Your task to perform on an android device: What's the weather going to be tomorrow? Image 0: 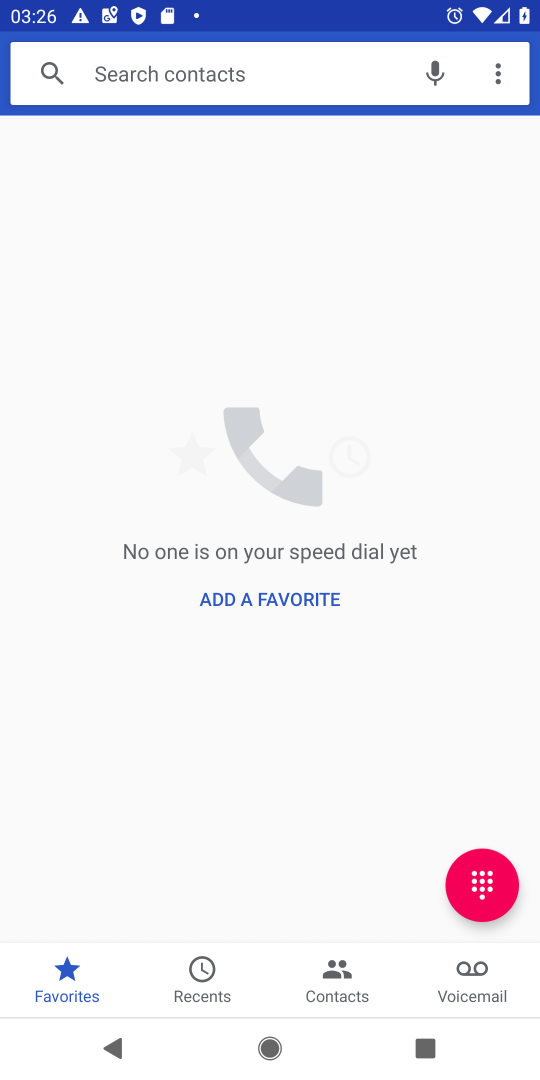
Step 0: press home button
Your task to perform on an android device: What's the weather going to be tomorrow? Image 1: 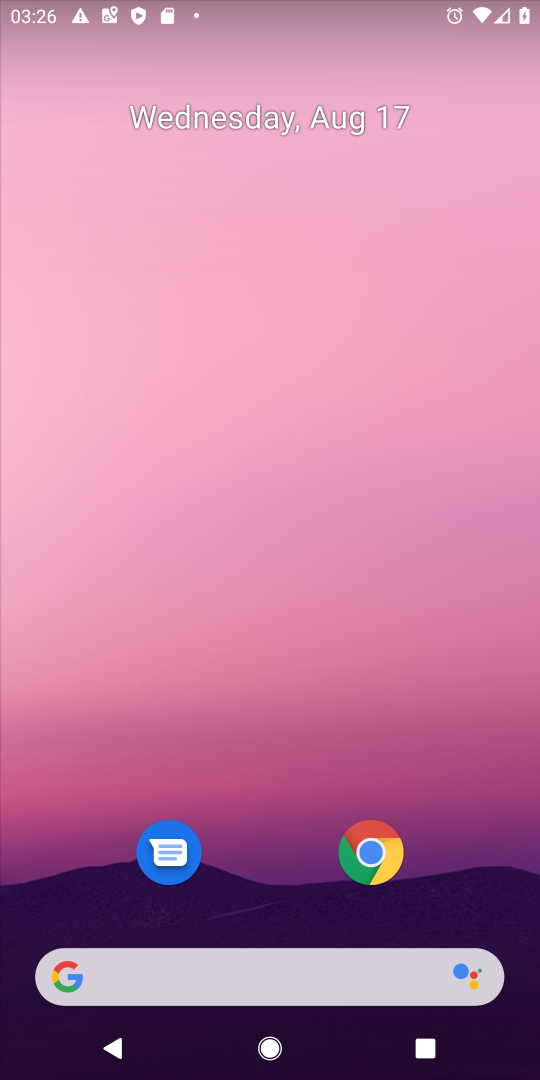
Step 1: click (371, 854)
Your task to perform on an android device: What's the weather going to be tomorrow? Image 2: 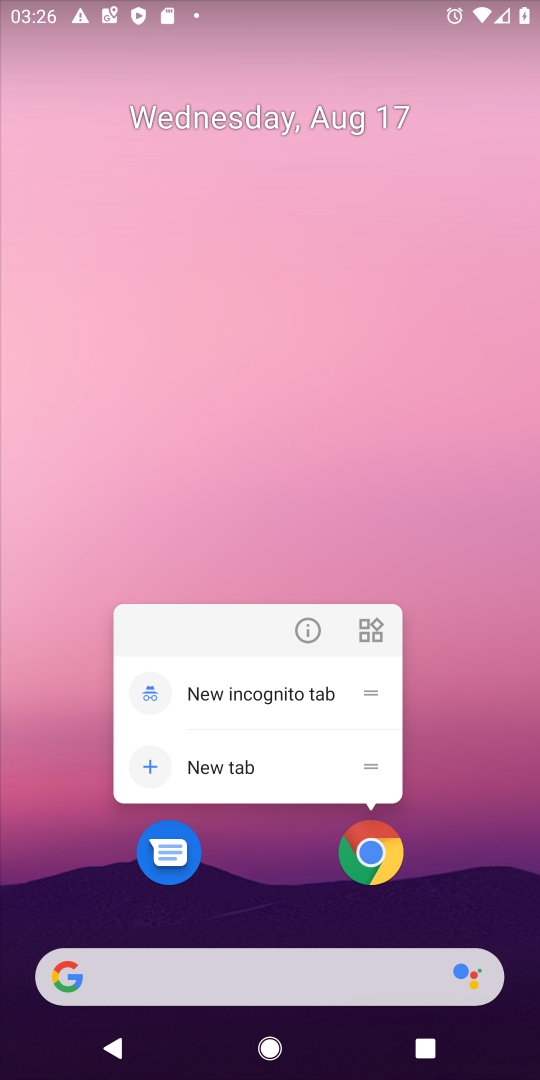
Step 2: click (371, 854)
Your task to perform on an android device: What's the weather going to be tomorrow? Image 3: 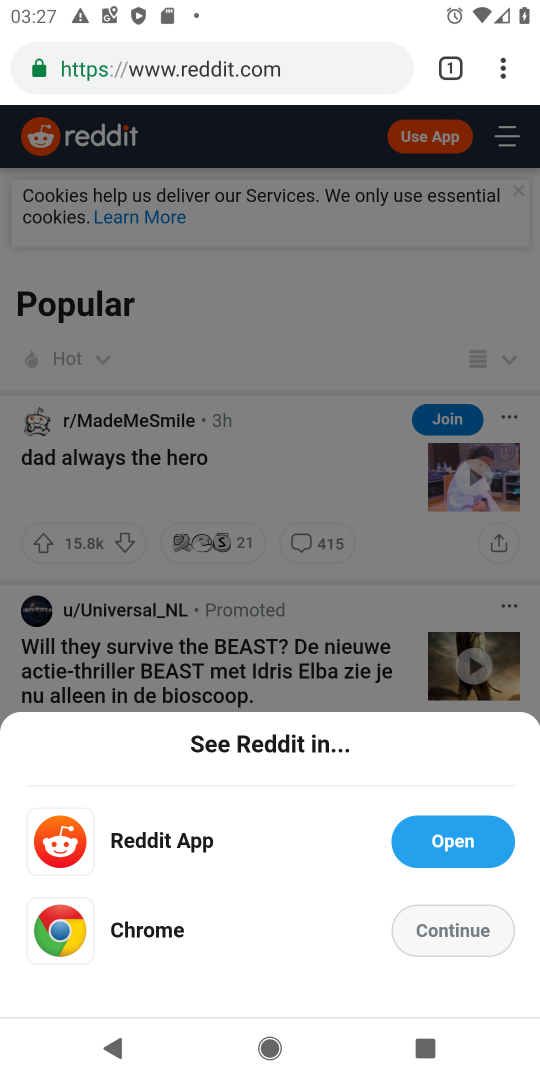
Step 3: click (230, 54)
Your task to perform on an android device: What's the weather going to be tomorrow? Image 4: 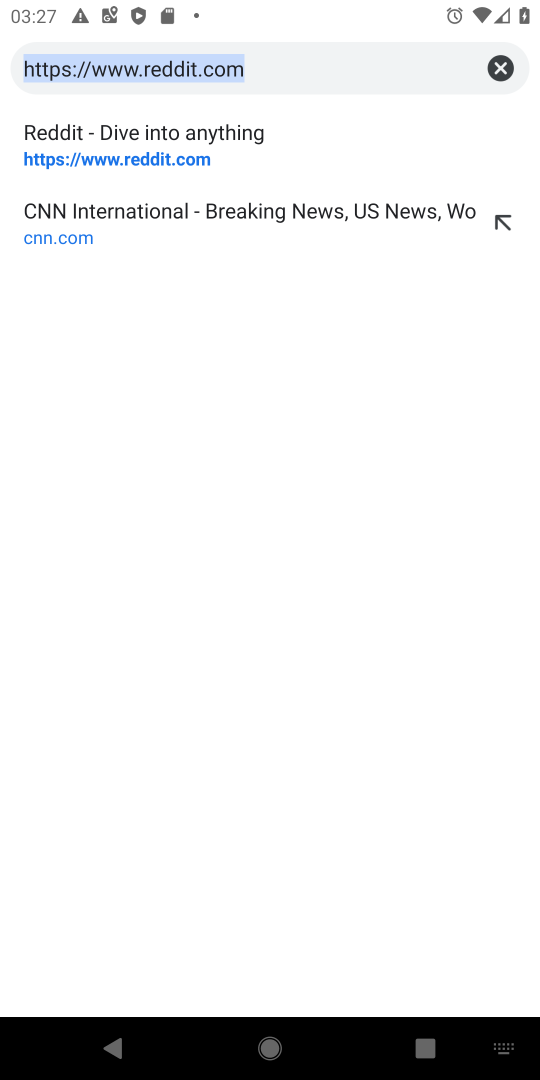
Step 4: type "weather"
Your task to perform on an android device: What's the weather going to be tomorrow? Image 5: 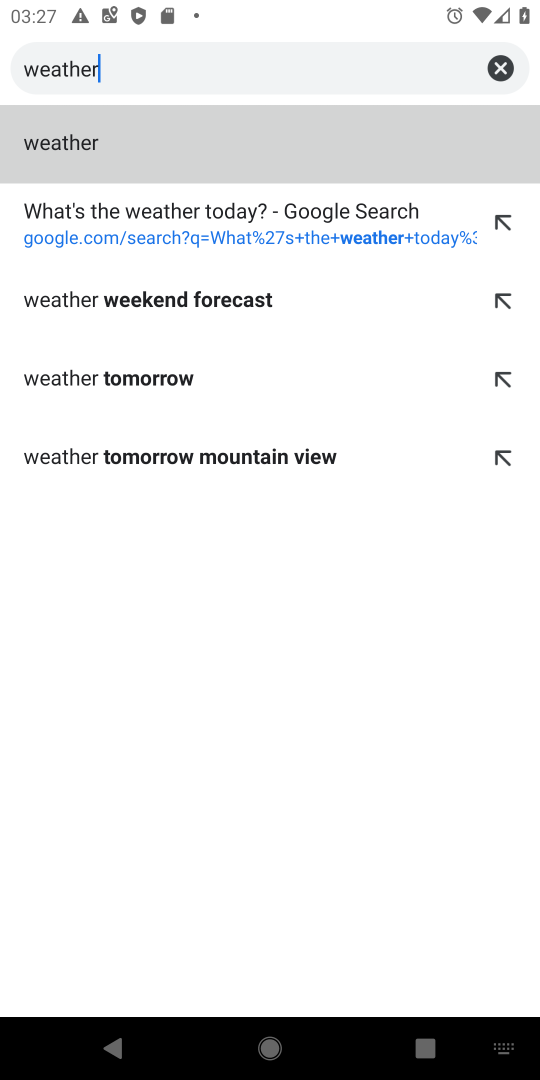
Step 5: click (150, 149)
Your task to perform on an android device: What's the weather going to be tomorrow? Image 6: 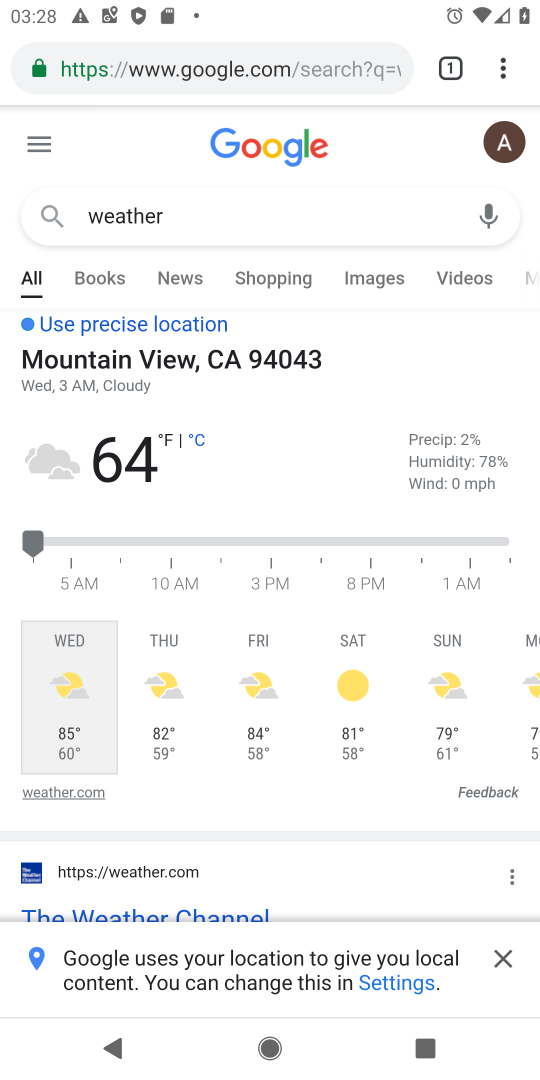
Step 6: click (176, 665)
Your task to perform on an android device: What's the weather going to be tomorrow? Image 7: 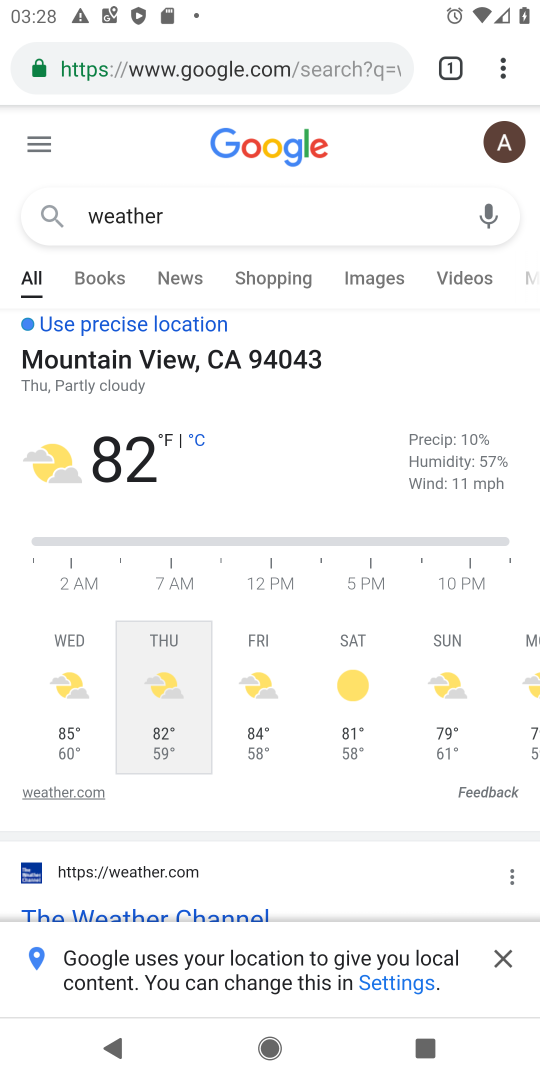
Step 7: task complete